Your task to perform on an android device: move a message to another label in the gmail app Image 0: 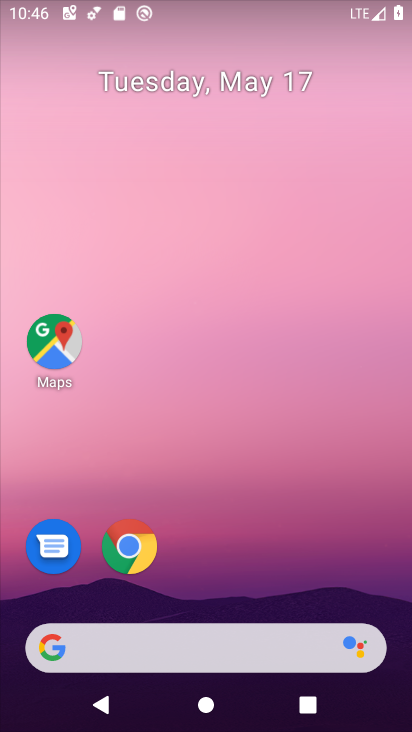
Step 0: drag from (202, 594) to (292, 7)
Your task to perform on an android device: move a message to another label in the gmail app Image 1: 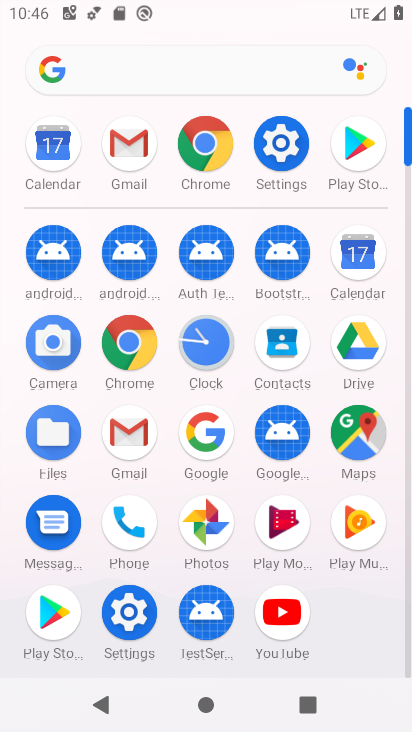
Step 1: click (135, 432)
Your task to perform on an android device: move a message to another label in the gmail app Image 2: 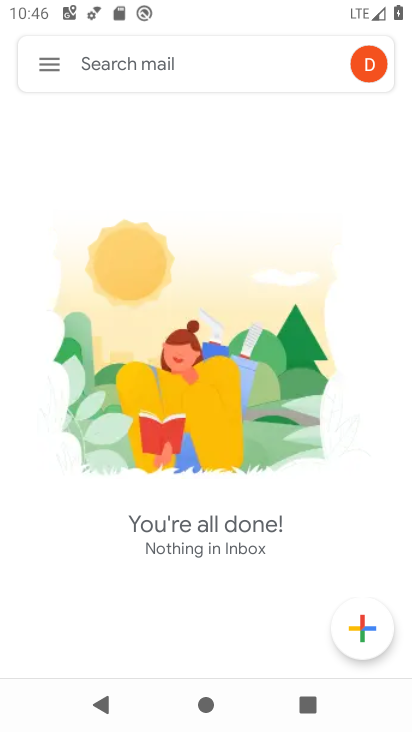
Step 2: click (52, 63)
Your task to perform on an android device: move a message to another label in the gmail app Image 3: 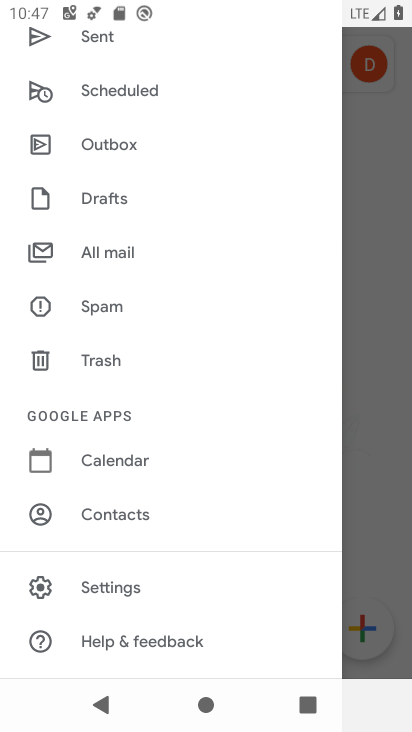
Step 3: drag from (137, 162) to (126, 432)
Your task to perform on an android device: move a message to another label in the gmail app Image 4: 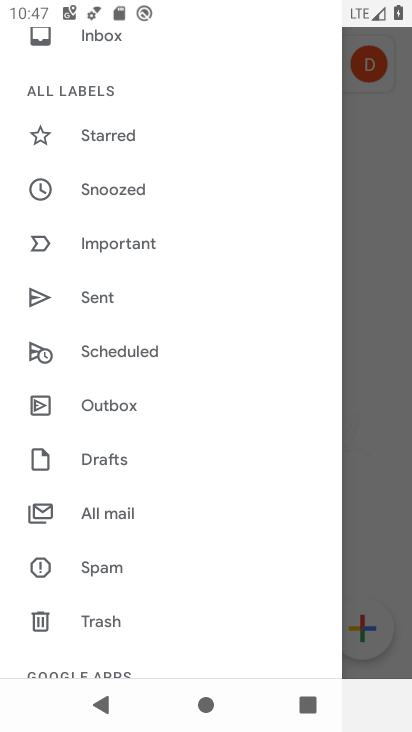
Step 4: click (100, 522)
Your task to perform on an android device: move a message to another label in the gmail app Image 5: 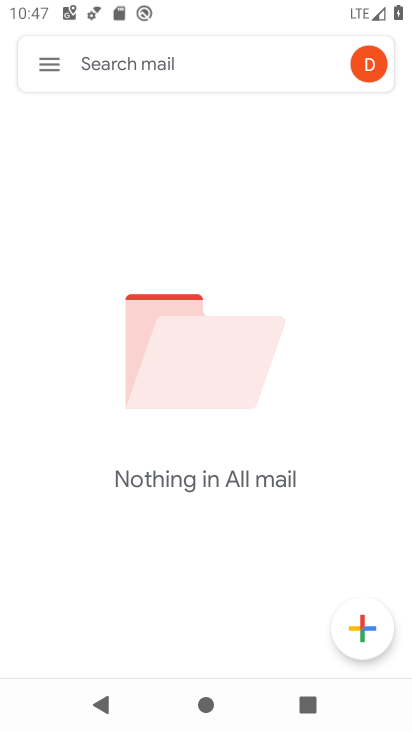
Step 5: task complete